Your task to perform on an android device: empty trash in the gmail app Image 0: 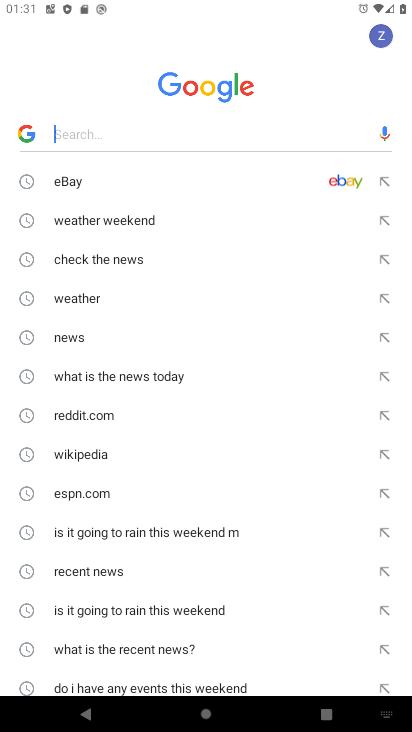
Step 0: press home button
Your task to perform on an android device: empty trash in the gmail app Image 1: 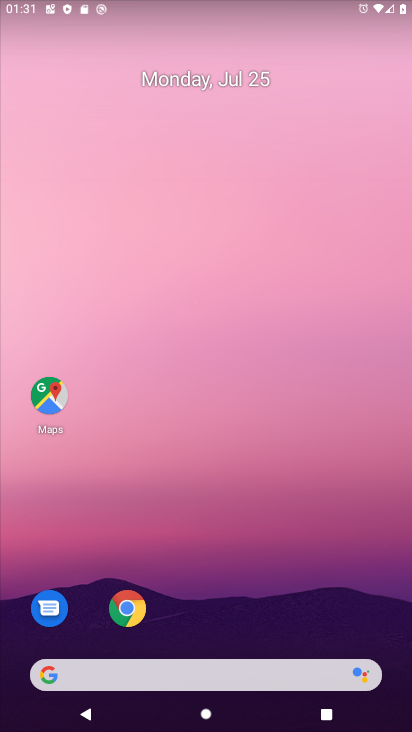
Step 1: drag from (212, 660) to (190, 54)
Your task to perform on an android device: empty trash in the gmail app Image 2: 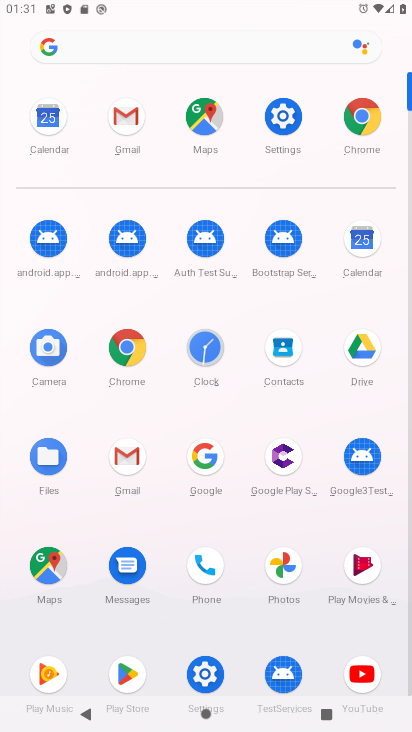
Step 2: click (118, 467)
Your task to perform on an android device: empty trash in the gmail app Image 3: 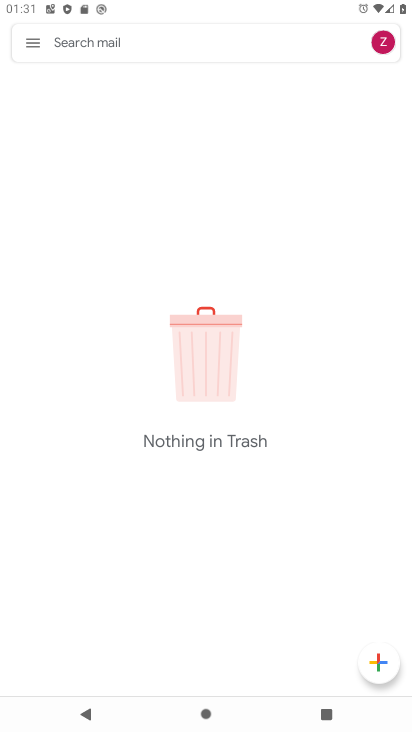
Step 3: click (39, 50)
Your task to perform on an android device: empty trash in the gmail app Image 4: 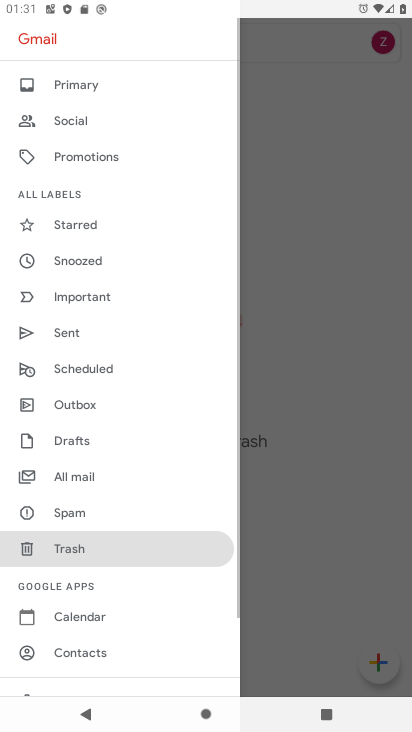
Step 4: click (86, 556)
Your task to perform on an android device: empty trash in the gmail app Image 5: 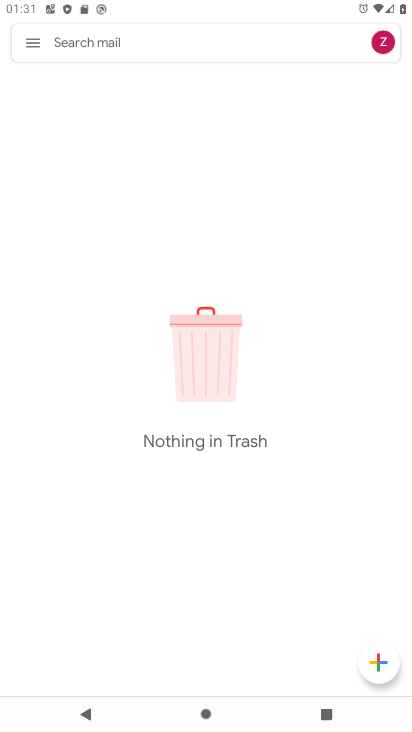
Step 5: task complete